Your task to perform on an android device: check out phone information Image 0: 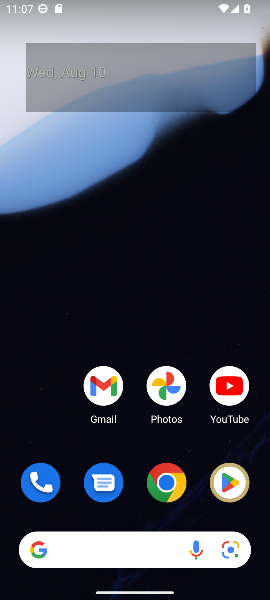
Step 0: press home button
Your task to perform on an android device: check out phone information Image 1: 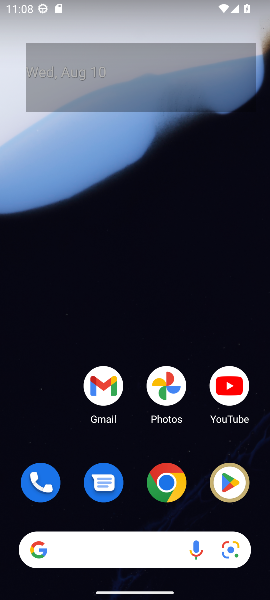
Step 1: drag from (59, 414) to (67, 219)
Your task to perform on an android device: check out phone information Image 2: 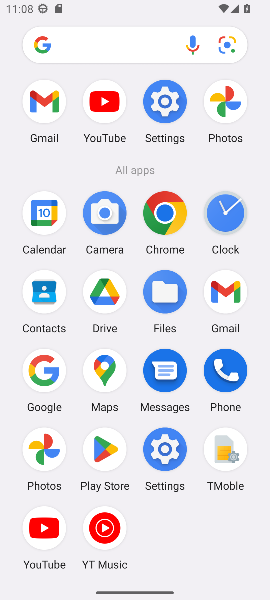
Step 2: click (166, 455)
Your task to perform on an android device: check out phone information Image 3: 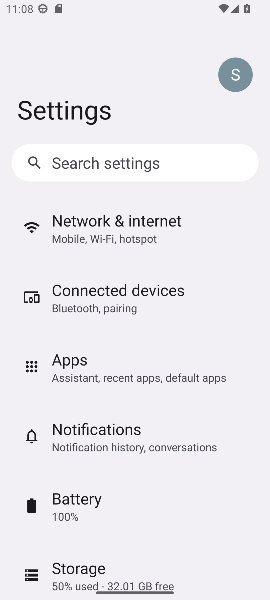
Step 3: task complete